Your task to perform on an android device: create a new album in the google photos Image 0: 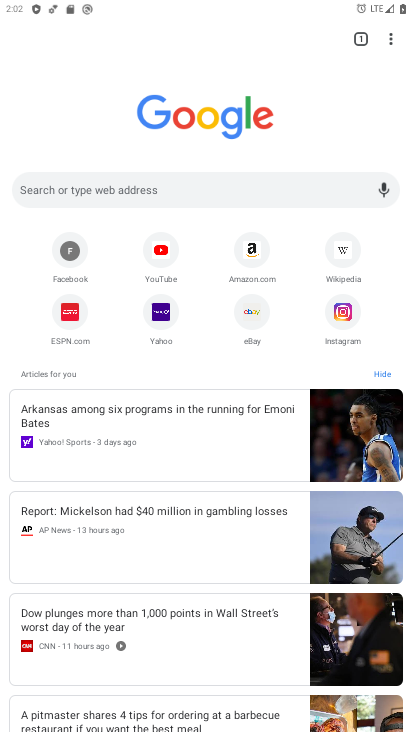
Step 0: press home button
Your task to perform on an android device: create a new album in the google photos Image 1: 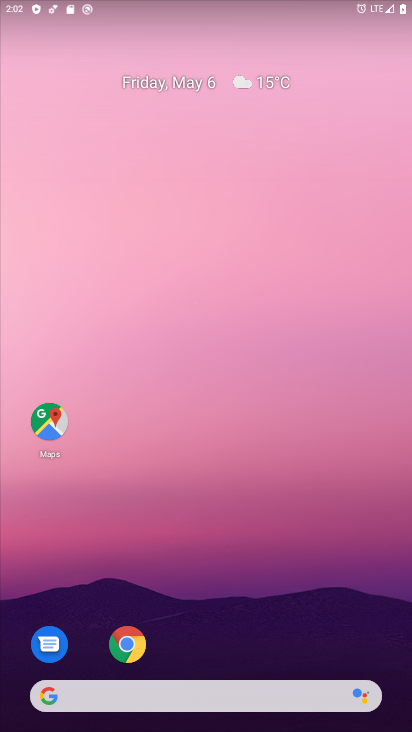
Step 1: drag from (267, 618) to (190, 150)
Your task to perform on an android device: create a new album in the google photos Image 2: 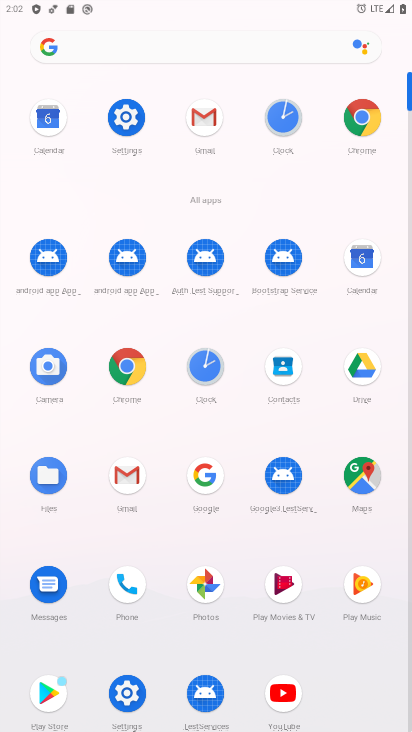
Step 2: click (206, 579)
Your task to perform on an android device: create a new album in the google photos Image 3: 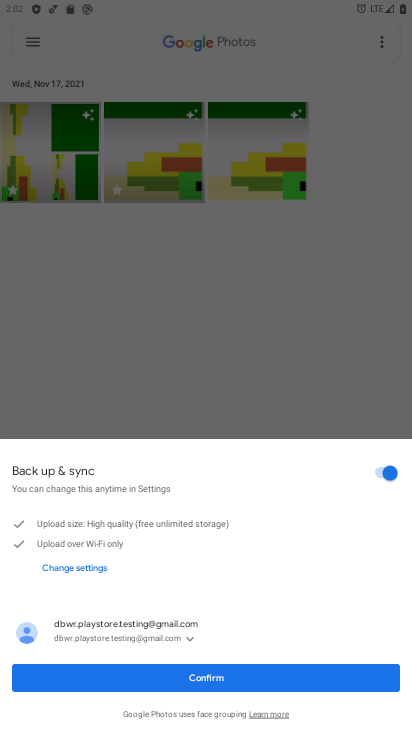
Step 3: click (246, 686)
Your task to perform on an android device: create a new album in the google photos Image 4: 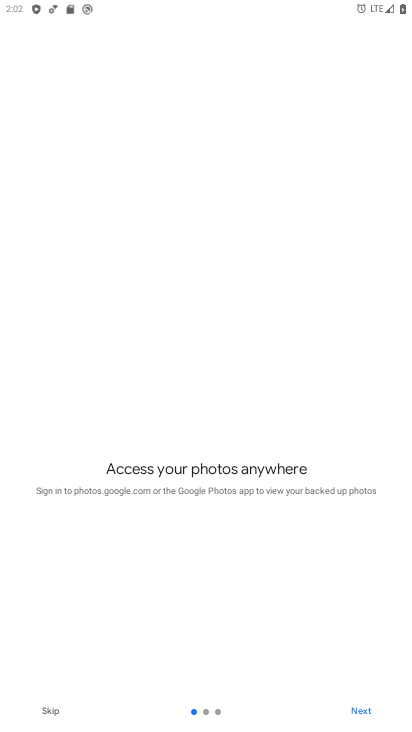
Step 4: click (369, 709)
Your task to perform on an android device: create a new album in the google photos Image 5: 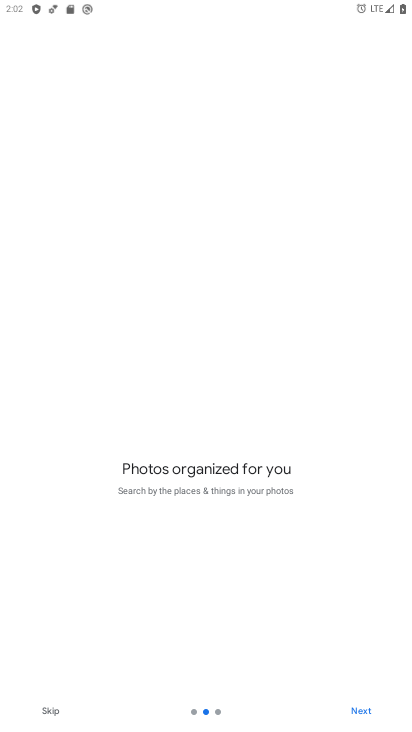
Step 5: click (368, 709)
Your task to perform on an android device: create a new album in the google photos Image 6: 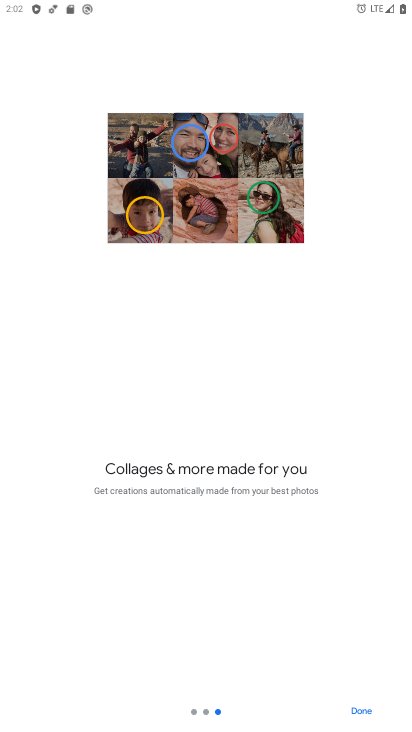
Step 6: click (368, 709)
Your task to perform on an android device: create a new album in the google photos Image 7: 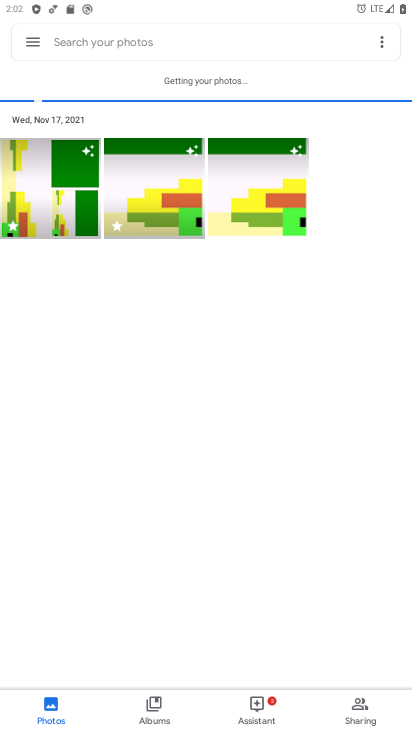
Step 7: click (255, 699)
Your task to perform on an android device: create a new album in the google photos Image 8: 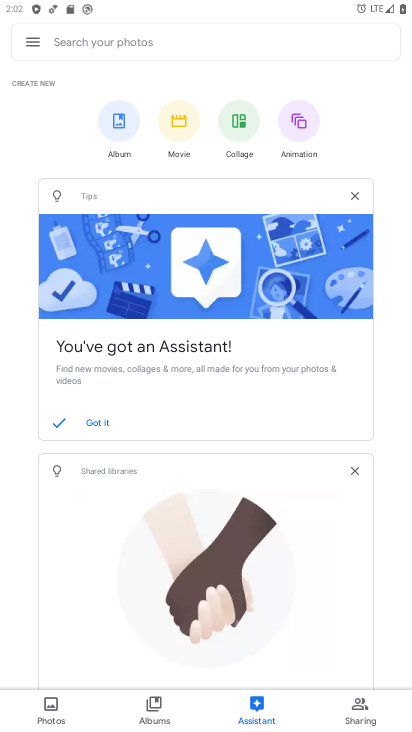
Step 8: click (115, 118)
Your task to perform on an android device: create a new album in the google photos Image 9: 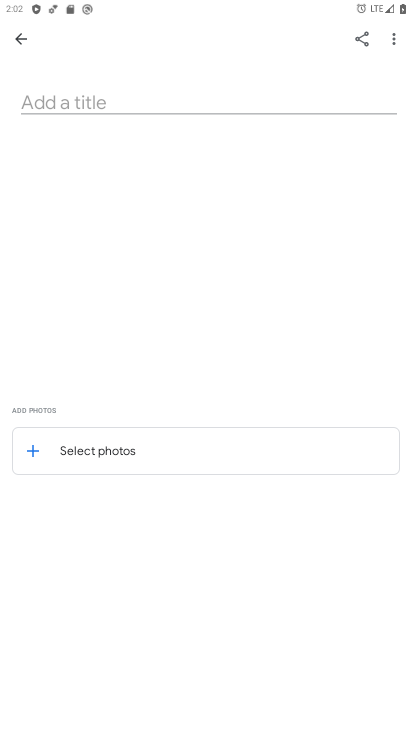
Step 9: click (117, 94)
Your task to perform on an android device: create a new album in the google photos Image 10: 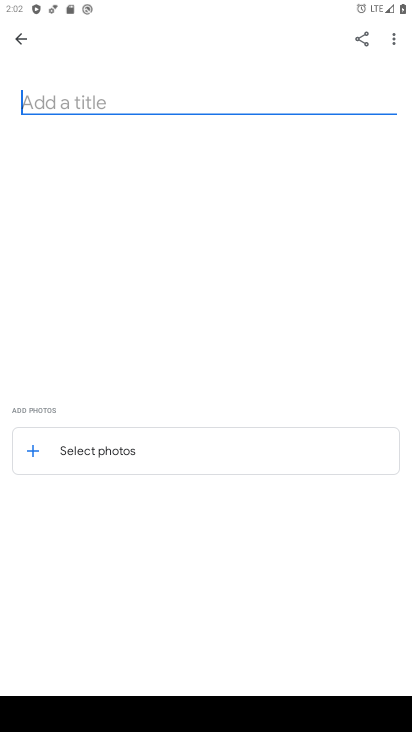
Step 10: type ".mkmk"
Your task to perform on an android device: create a new album in the google photos Image 11: 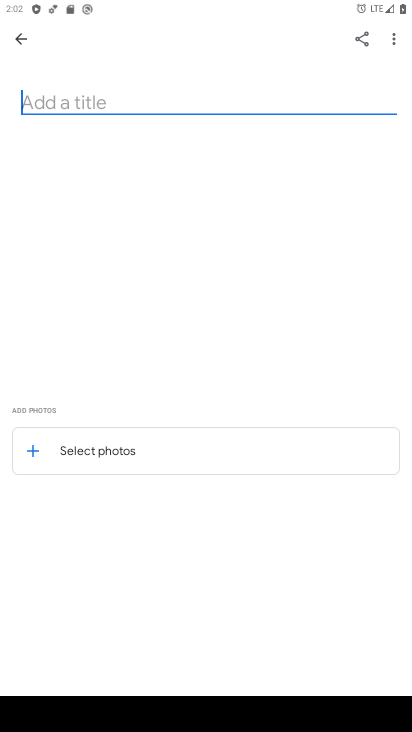
Step 11: click (378, 511)
Your task to perform on an android device: create a new album in the google photos Image 12: 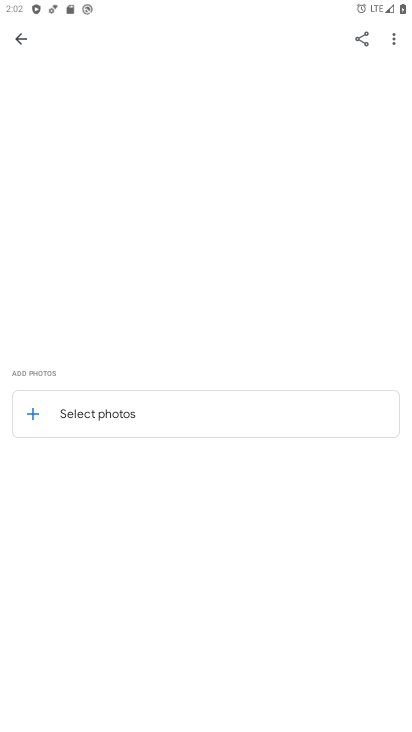
Step 12: click (298, 452)
Your task to perform on an android device: create a new album in the google photos Image 13: 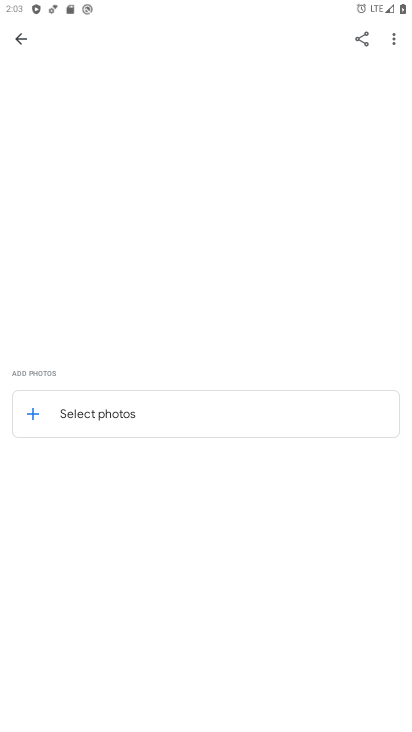
Step 13: click (257, 408)
Your task to perform on an android device: create a new album in the google photos Image 14: 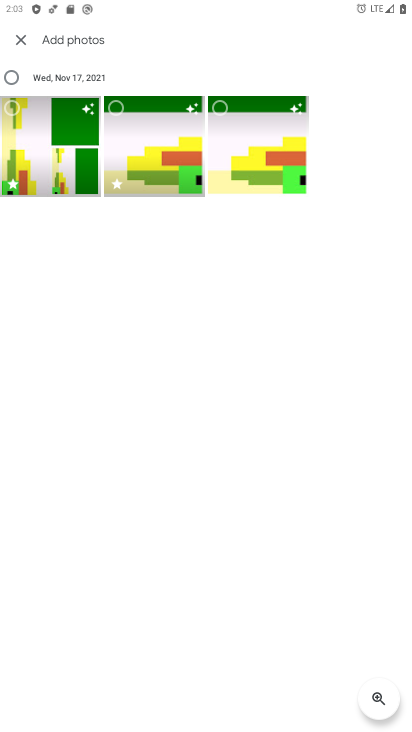
Step 14: click (259, 170)
Your task to perform on an android device: create a new album in the google photos Image 15: 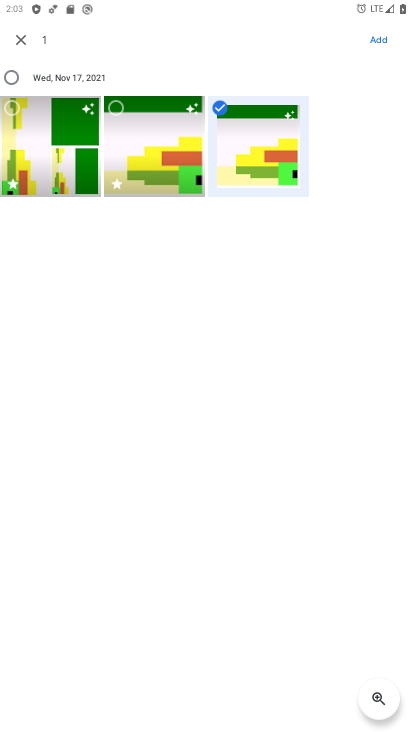
Step 15: click (106, 142)
Your task to perform on an android device: create a new album in the google photos Image 16: 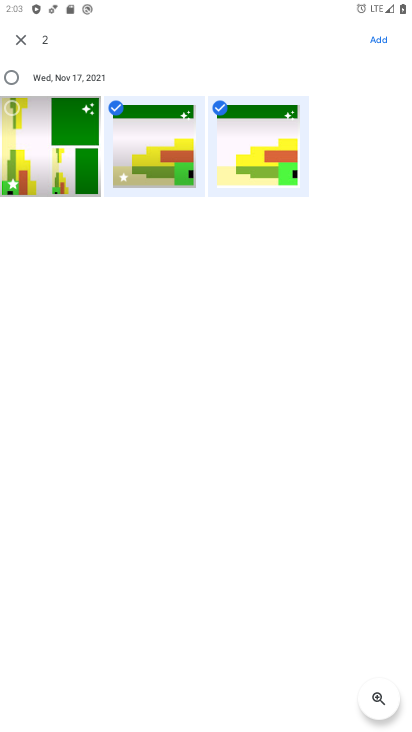
Step 16: click (47, 130)
Your task to perform on an android device: create a new album in the google photos Image 17: 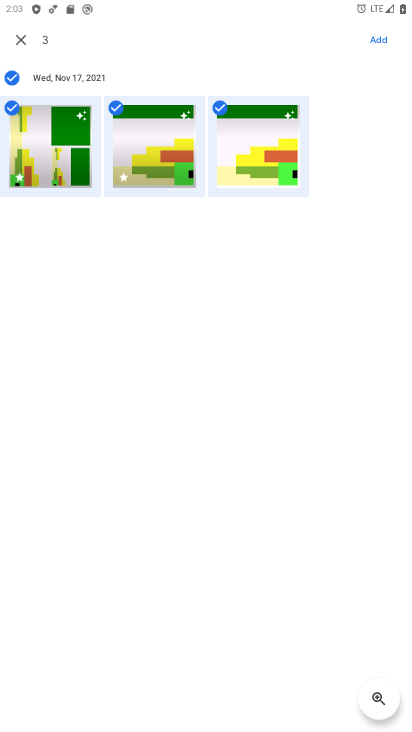
Step 17: click (381, 42)
Your task to perform on an android device: create a new album in the google photos Image 18: 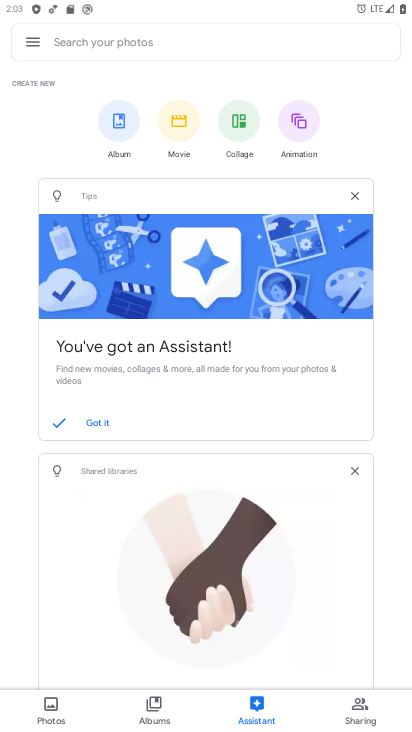
Step 18: task complete